Your task to perform on an android device: Open calendar and show me the second week of next month Image 0: 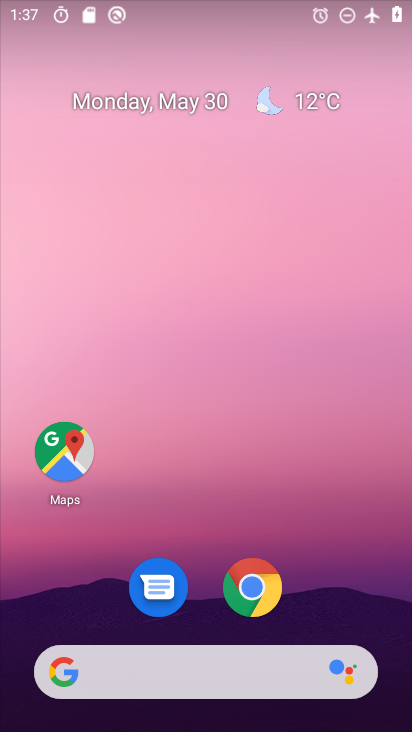
Step 0: drag from (353, 107) to (353, 46)
Your task to perform on an android device: Open calendar and show me the second week of next month Image 1: 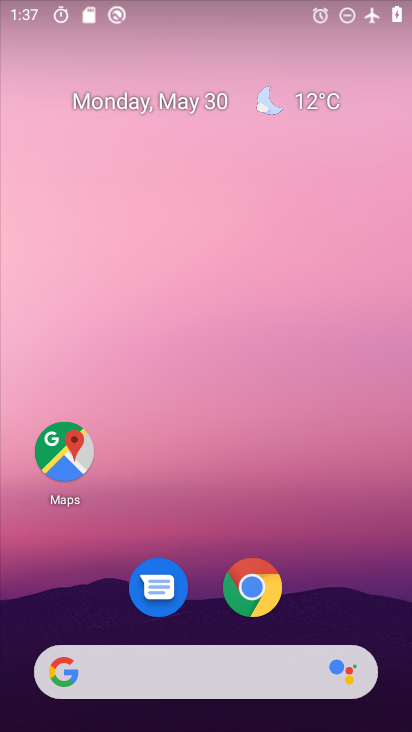
Step 1: drag from (334, 455) to (282, 98)
Your task to perform on an android device: Open calendar and show me the second week of next month Image 2: 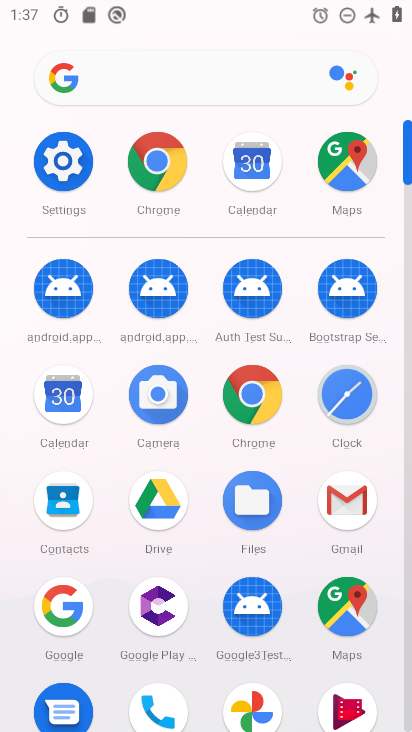
Step 2: click (62, 392)
Your task to perform on an android device: Open calendar and show me the second week of next month Image 3: 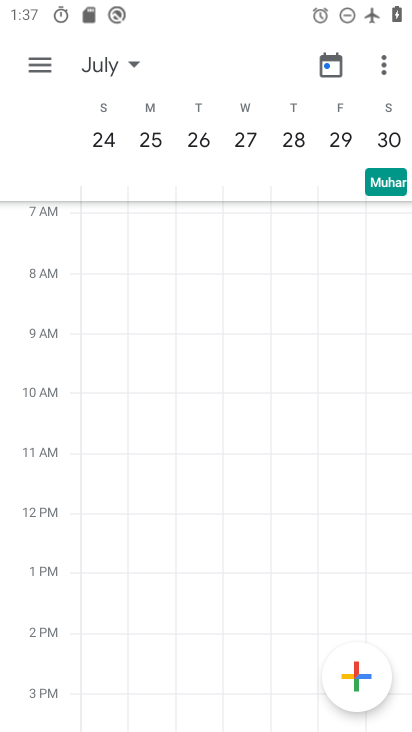
Step 3: click (108, 62)
Your task to perform on an android device: Open calendar and show me the second week of next month Image 4: 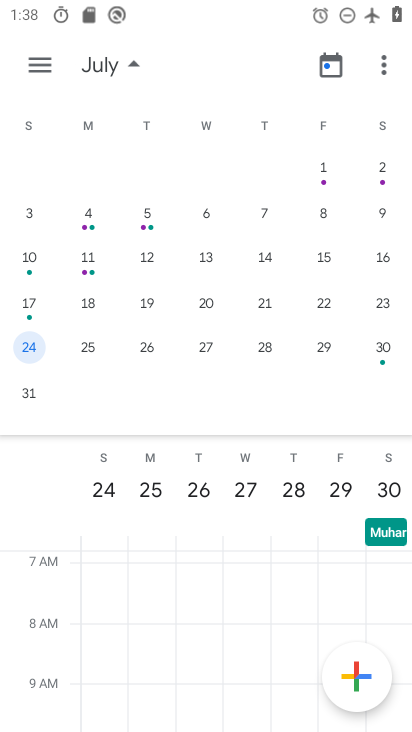
Step 4: click (26, 263)
Your task to perform on an android device: Open calendar and show me the second week of next month Image 5: 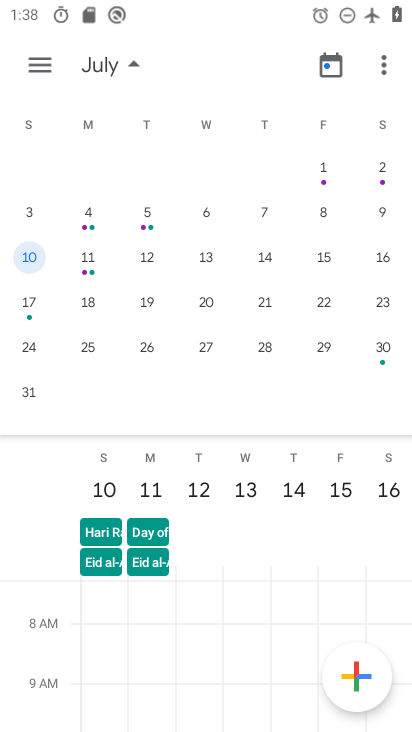
Step 5: task complete